Your task to perform on an android device: turn on data saver in the chrome app Image 0: 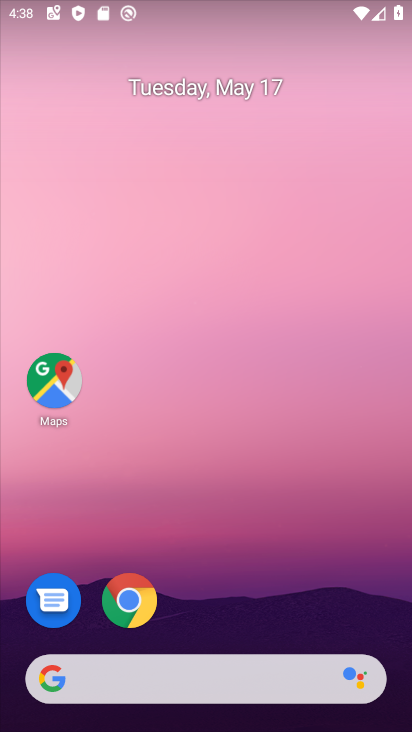
Step 0: click (129, 594)
Your task to perform on an android device: turn on data saver in the chrome app Image 1: 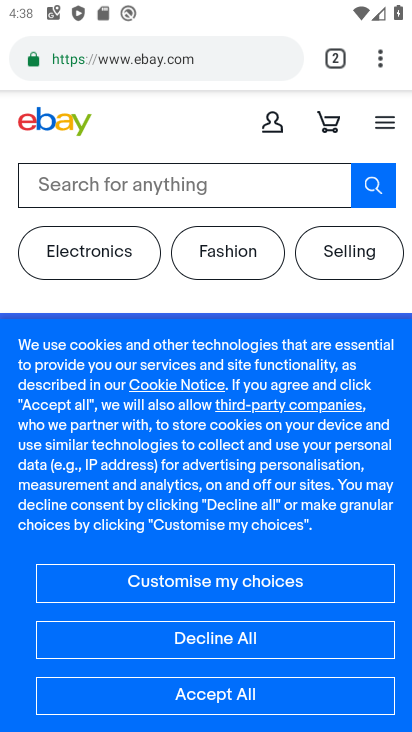
Step 1: click (382, 65)
Your task to perform on an android device: turn on data saver in the chrome app Image 2: 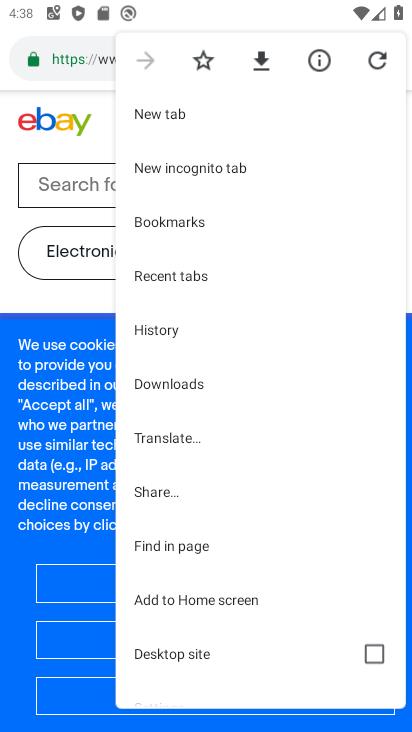
Step 2: drag from (178, 634) to (198, 395)
Your task to perform on an android device: turn on data saver in the chrome app Image 3: 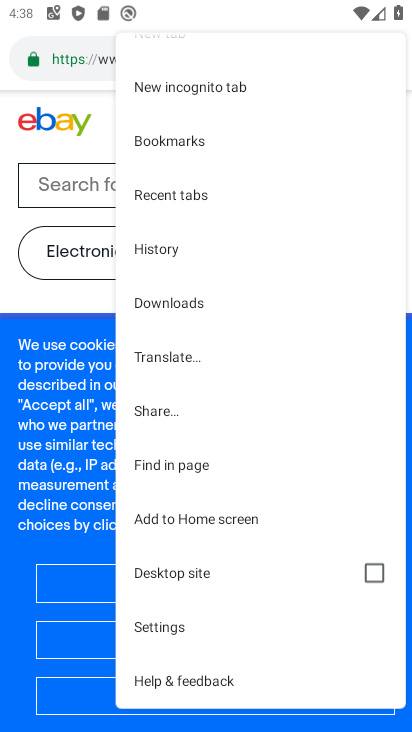
Step 3: click (148, 627)
Your task to perform on an android device: turn on data saver in the chrome app Image 4: 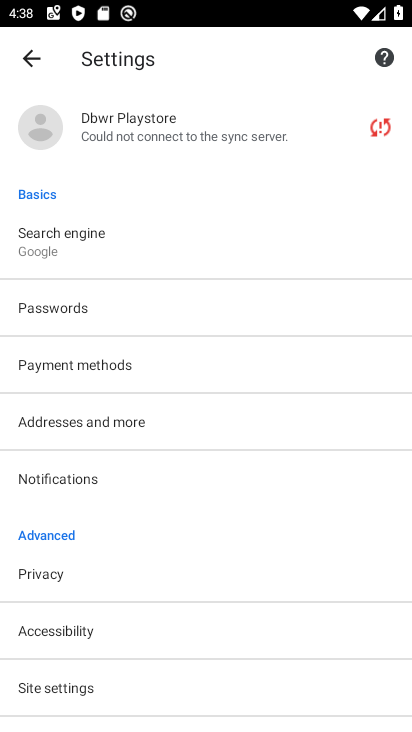
Step 4: drag from (67, 631) to (110, 467)
Your task to perform on an android device: turn on data saver in the chrome app Image 5: 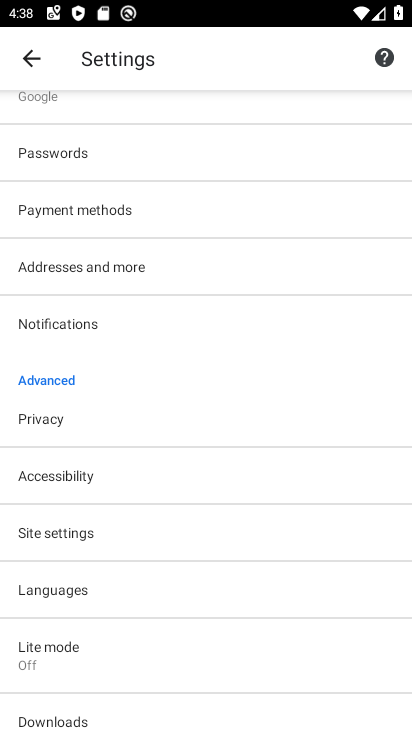
Step 5: click (55, 668)
Your task to perform on an android device: turn on data saver in the chrome app Image 6: 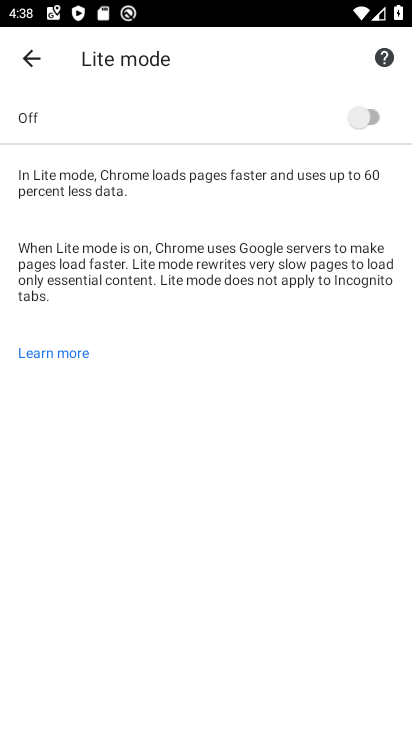
Step 6: click (342, 115)
Your task to perform on an android device: turn on data saver in the chrome app Image 7: 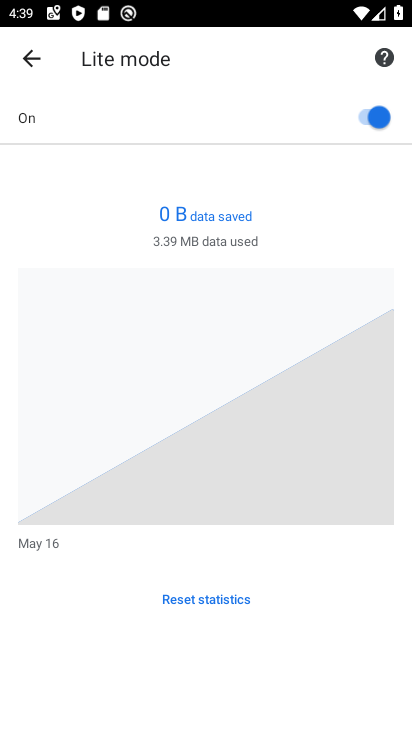
Step 7: task complete